Your task to perform on an android device: What's the weather? Image 0: 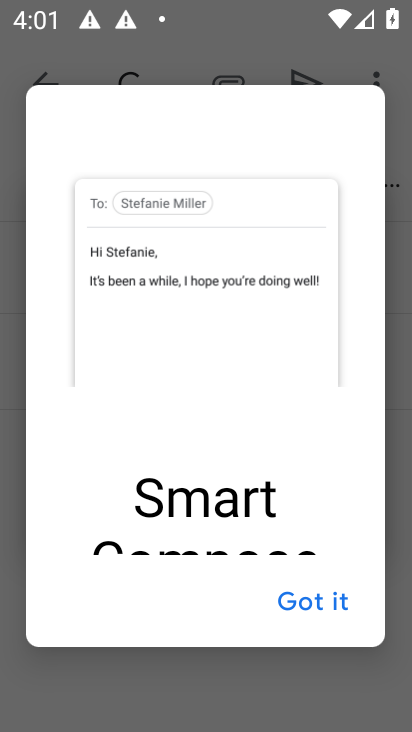
Step 0: press home button
Your task to perform on an android device: What's the weather? Image 1: 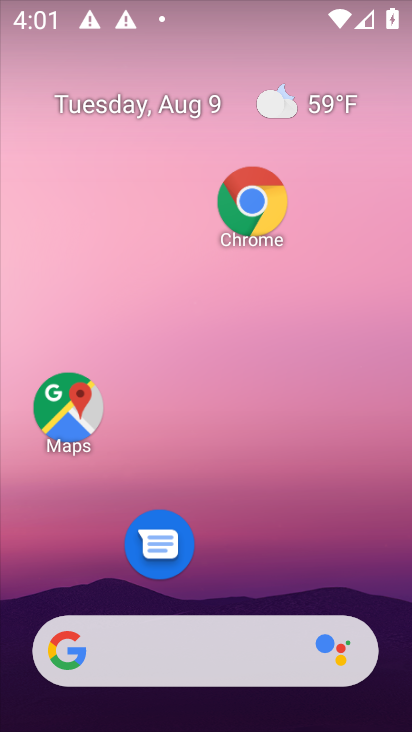
Step 1: drag from (193, 631) to (246, 153)
Your task to perform on an android device: What's the weather? Image 2: 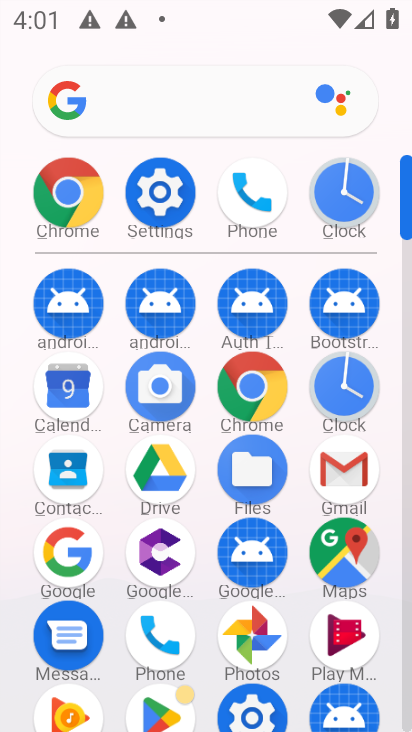
Step 2: click (71, 549)
Your task to perform on an android device: What's the weather? Image 3: 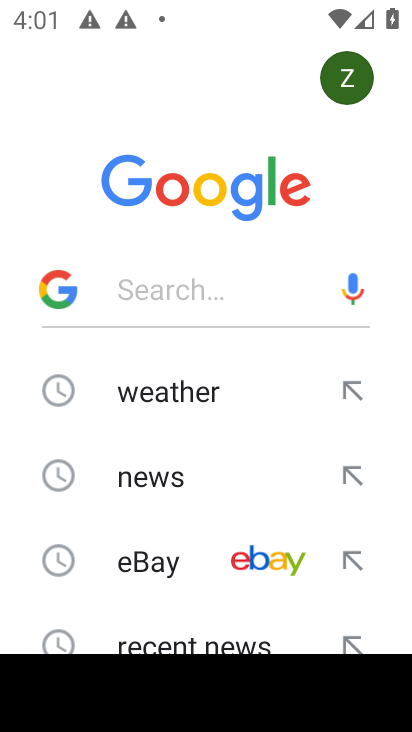
Step 3: click (174, 291)
Your task to perform on an android device: What's the weather? Image 4: 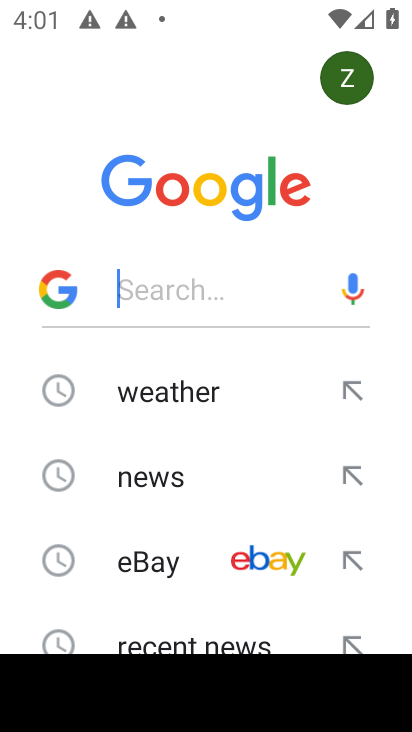
Step 4: click (168, 399)
Your task to perform on an android device: What's the weather? Image 5: 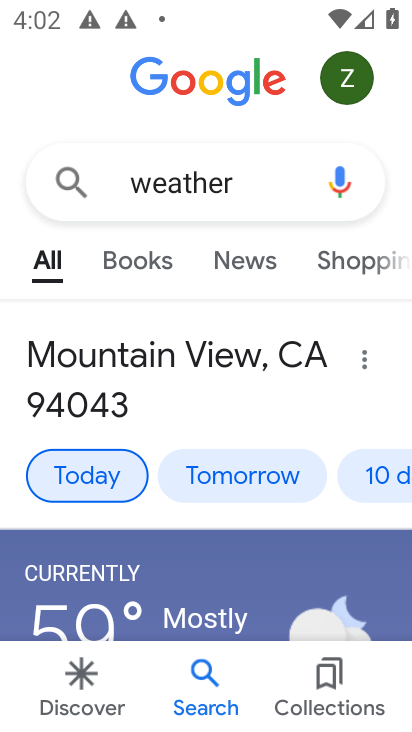
Step 5: task complete